Your task to perform on an android device: visit the assistant section in the google photos Image 0: 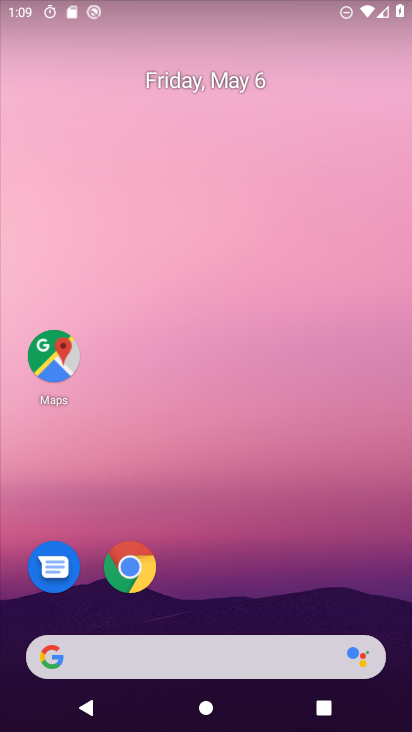
Step 0: drag from (286, 674) to (229, 167)
Your task to perform on an android device: visit the assistant section in the google photos Image 1: 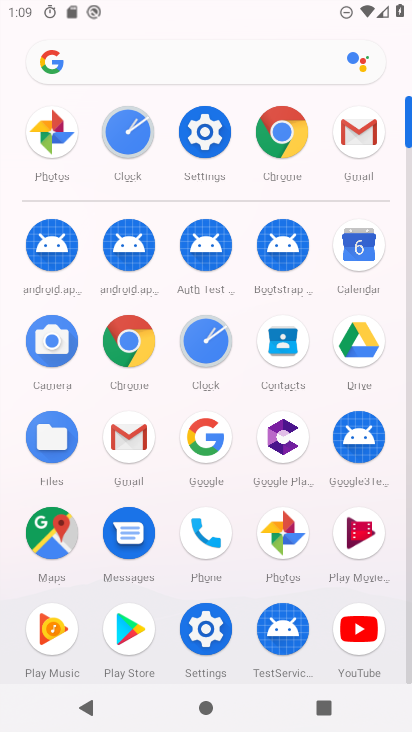
Step 1: click (293, 527)
Your task to perform on an android device: visit the assistant section in the google photos Image 2: 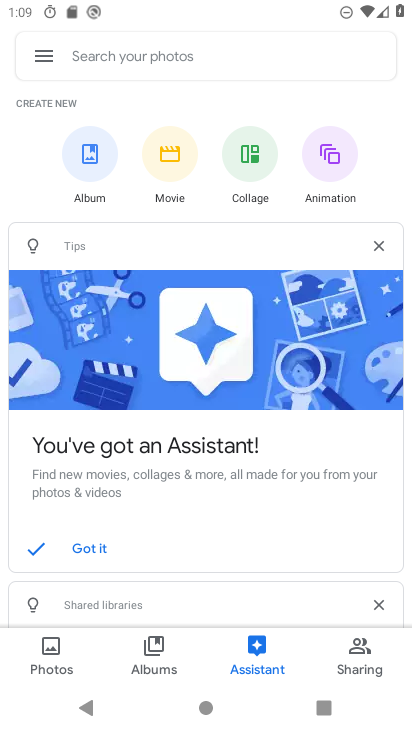
Step 2: click (255, 658)
Your task to perform on an android device: visit the assistant section in the google photos Image 3: 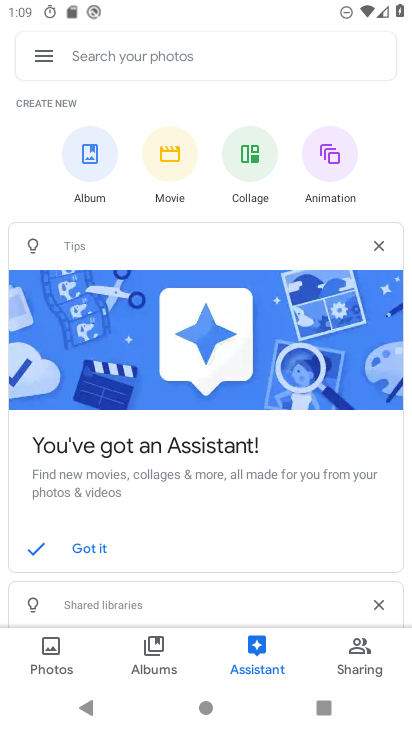
Step 3: task complete